Your task to perform on an android device: check out phone information Image 0: 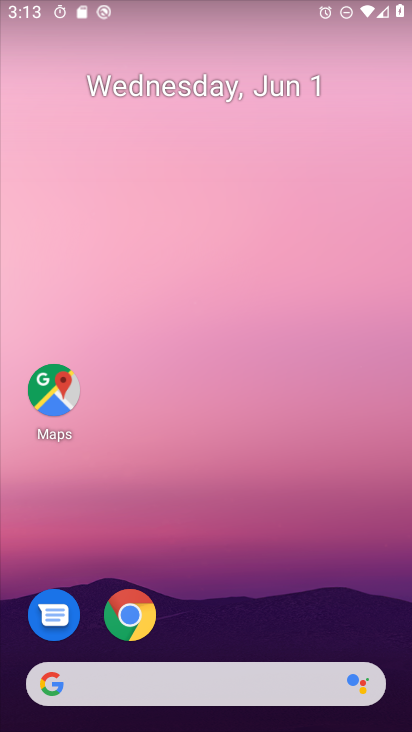
Step 0: drag from (312, 674) to (339, 6)
Your task to perform on an android device: check out phone information Image 1: 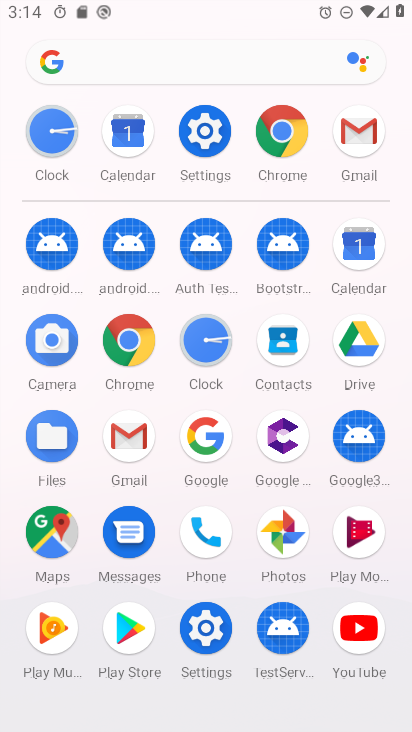
Step 1: click (187, 141)
Your task to perform on an android device: check out phone information Image 2: 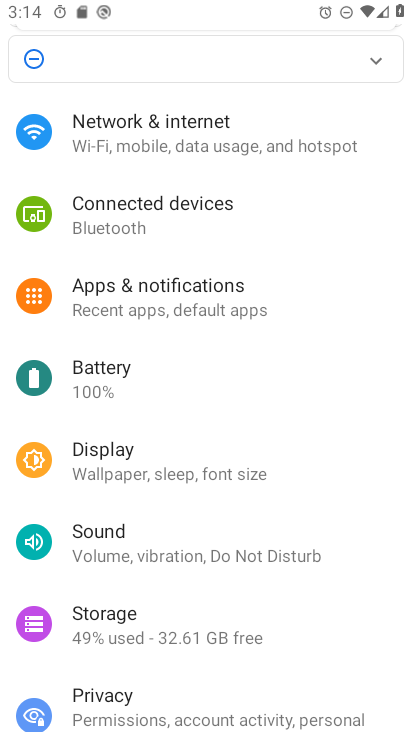
Step 2: drag from (219, 697) to (259, 182)
Your task to perform on an android device: check out phone information Image 3: 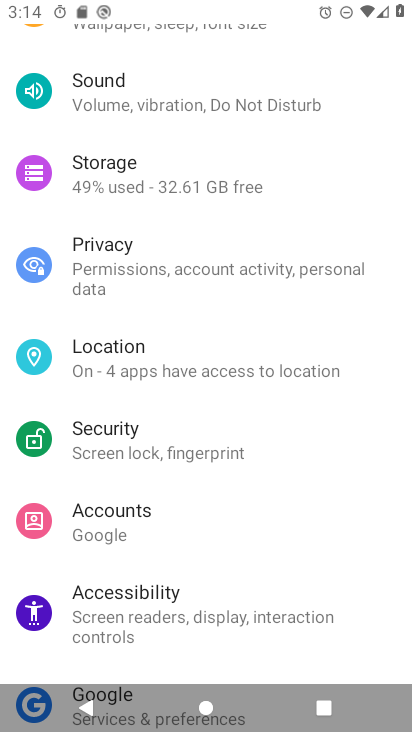
Step 3: drag from (230, 642) to (248, 187)
Your task to perform on an android device: check out phone information Image 4: 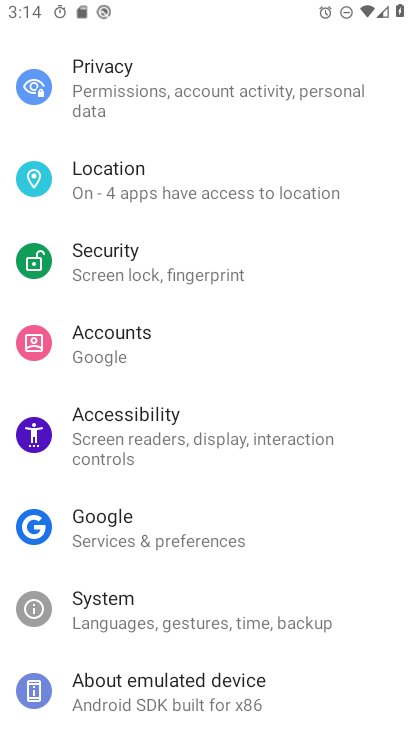
Step 4: click (231, 681)
Your task to perform on an android device: check out phone information Image 5: 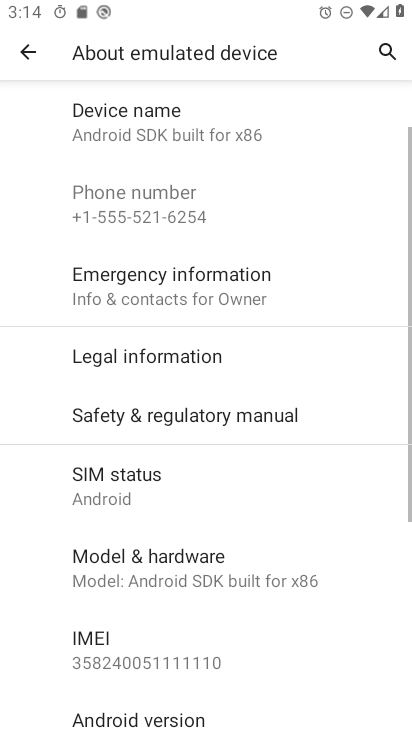
Step 5: task complete